Your task to perform on an android device: Open accessibility settings Image 0: 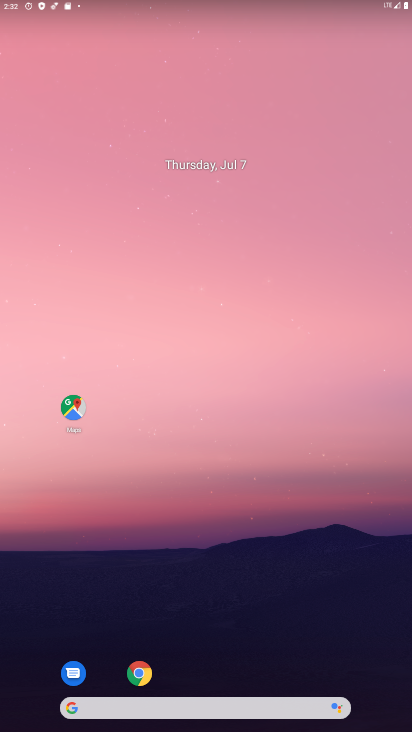
Step 0: drag from (194, 680) to (137, 53)
Your task to perform on an android device: Open accessibility settings Image 1: 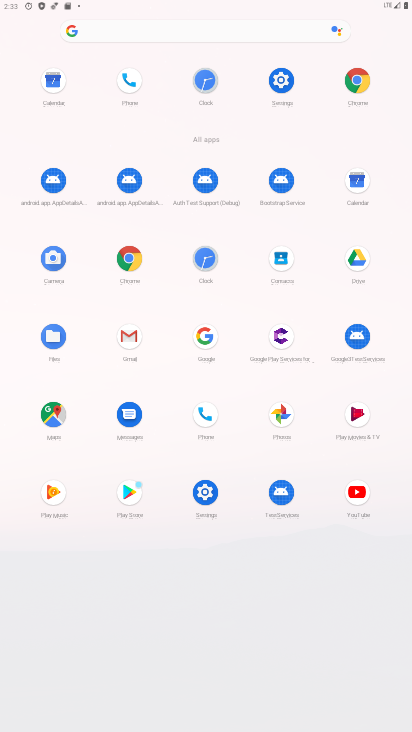
Step 1: click (282, 76)
Your task to perform on an android device: Open accessibility settings Image 2: 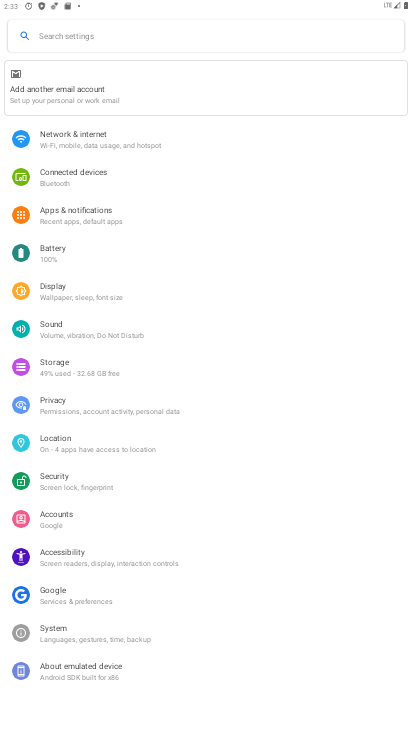
Step 2: click (33, 550)
Your task to perform on an android device: Open accessibility settings Image 3: 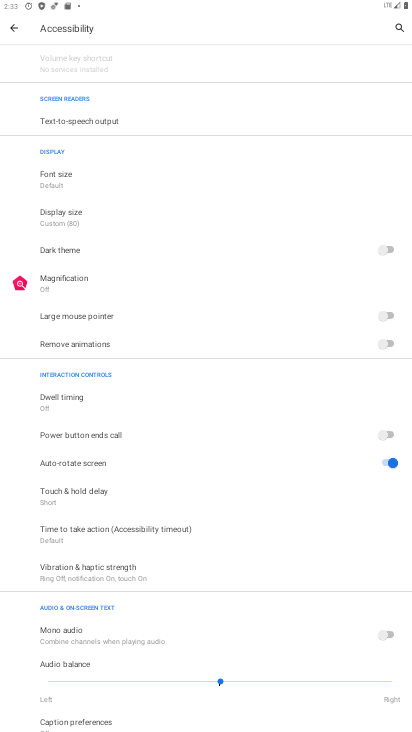
Step 3: task complete